Your task to perform on an android device: manage bookmarks in the chrome app Image 0: 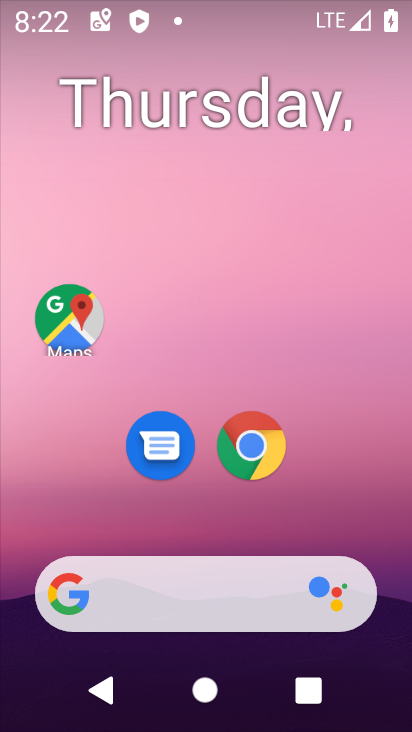
Step 0: drag from (393, 607) to (279, 16)
Your task to perform on an android device: manage bookmarks in the chrome app Image 1: 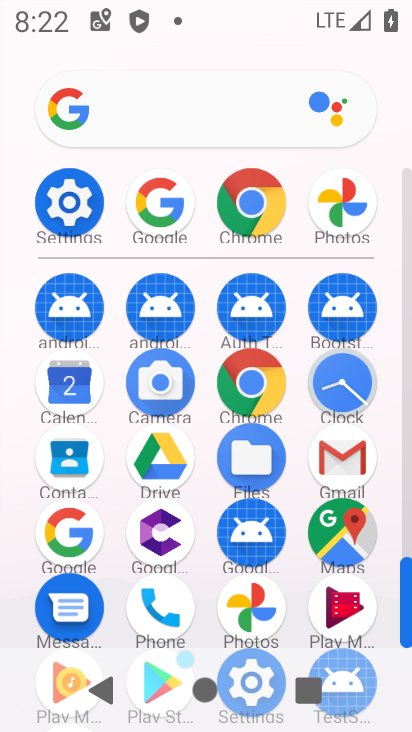
Step 1: click (256, 203)
Your task to perform on an android device: manage bookmarks in the chrome app Image 2: 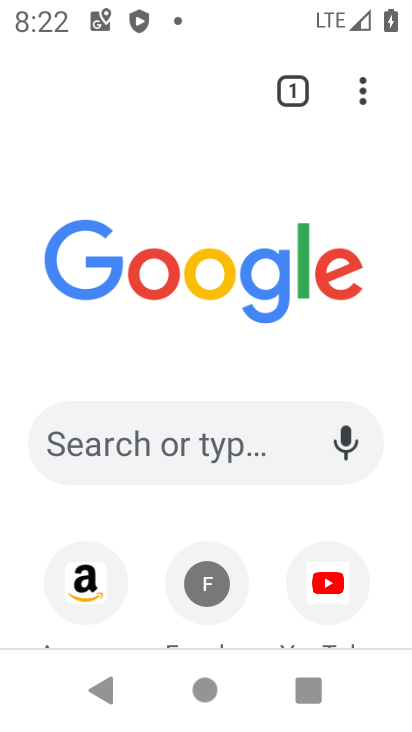
Step 2: click (362, 77)
Your task to perform on an android device: manage bookmarks in the chrome app Image 3: 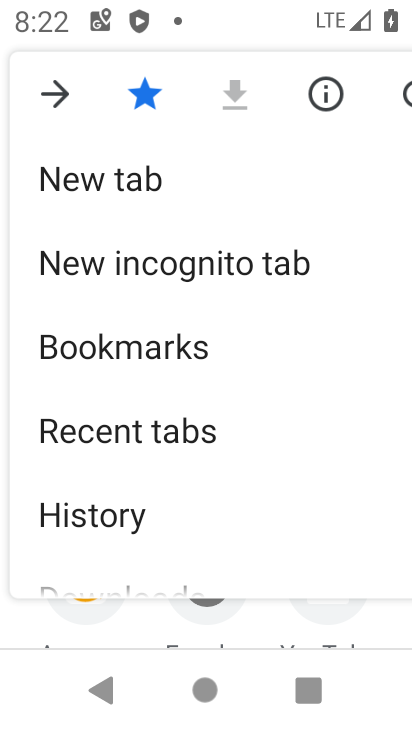
Step 3: click (196, 373)
Your task to perform on an android device: manage bookmarks in the chrome app Image 4: 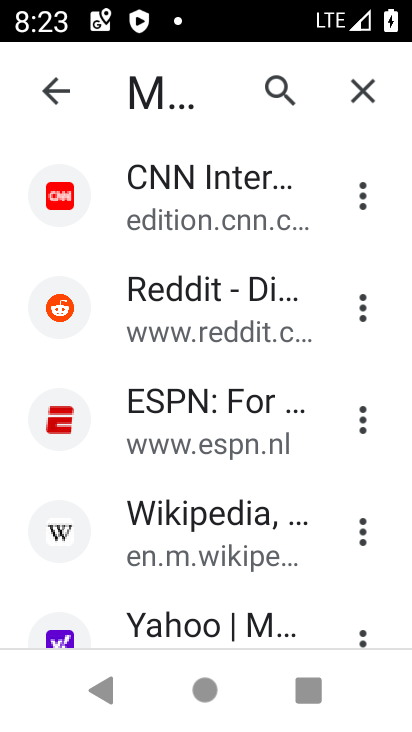
Step 4: task complete